Your task to perform on an android device: Go to eBay Image 0: 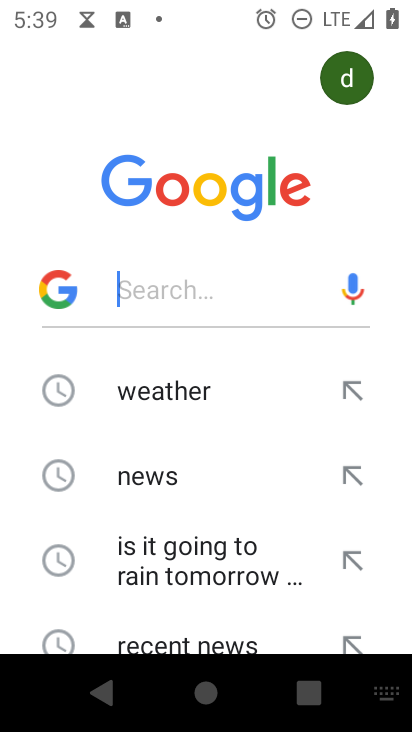
Step 0: press home button
Your task to perform on an android device: Go to eBay Image 1: 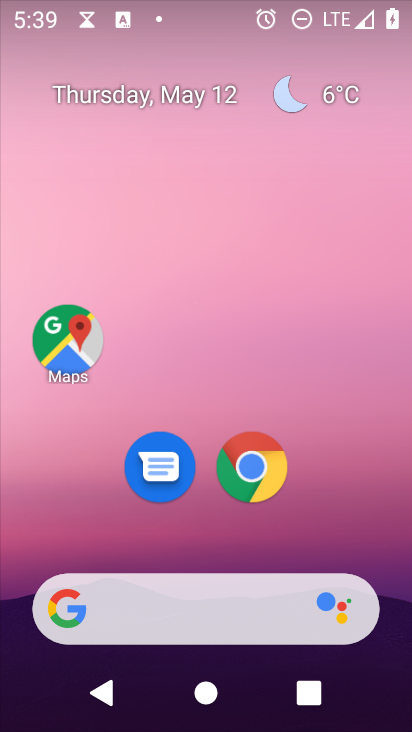
Step 1: drag from (278, 604) to (217, 17)
Your task to perform on an android device: Go to eBay Image 2: 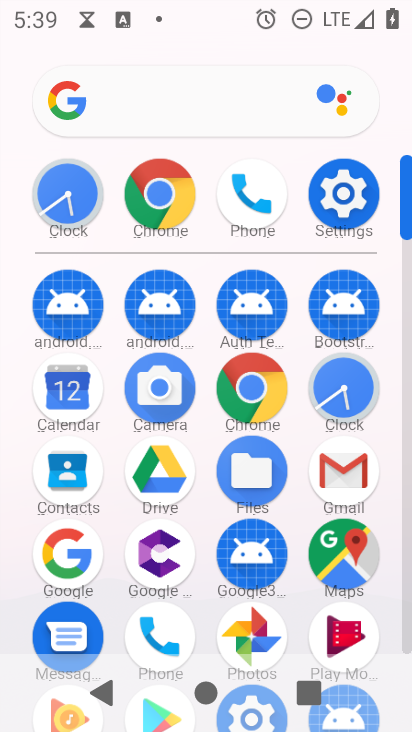
Step 2: click (255, 365)
Your task to perform on an android device: Go to eBay Image 3: 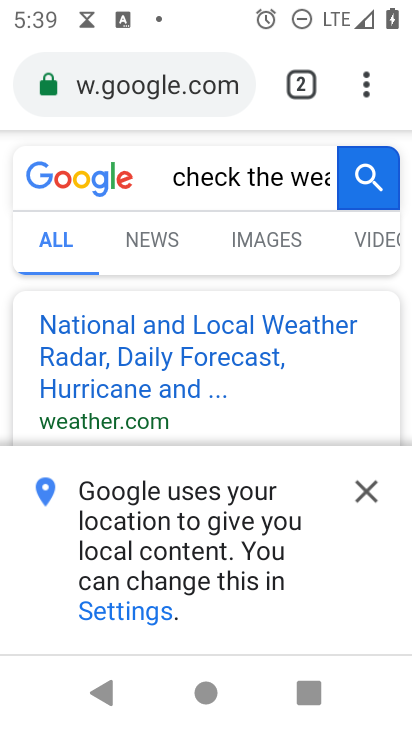
Step 3: click (234, 85)
Your task to perform on an android device: Go to eBay Image 4: 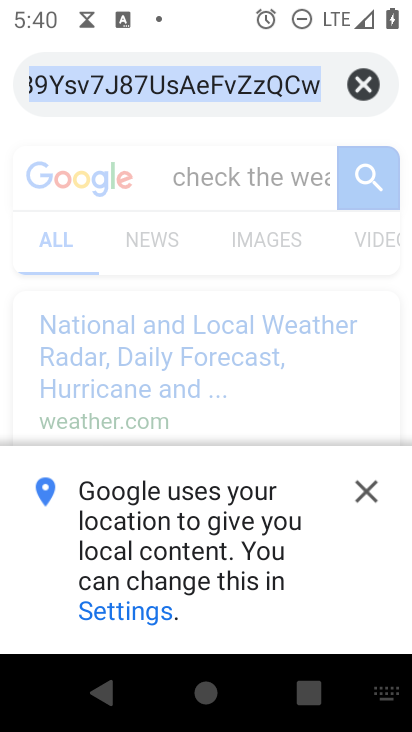
Step 4: click (367, 78)
Your task to perform on an android device: Go to eBay Image 5: 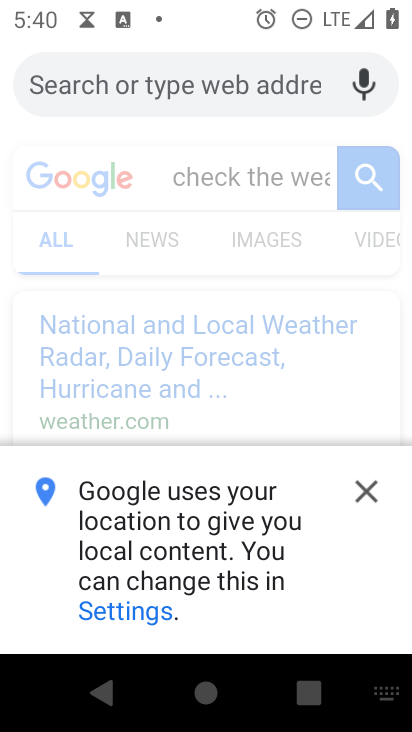
Step 5: type "ebay"
Your task to perform on an android device: Go to eBay Image 6: 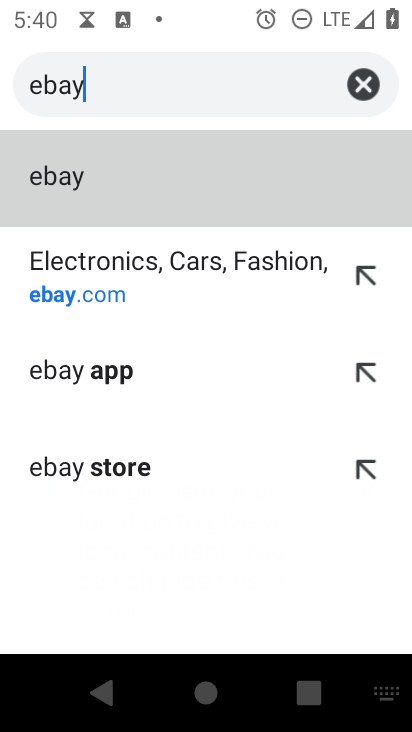
Step 6: click (243, 297)
Your task to perform on an android device: Go to eBay Image 7: 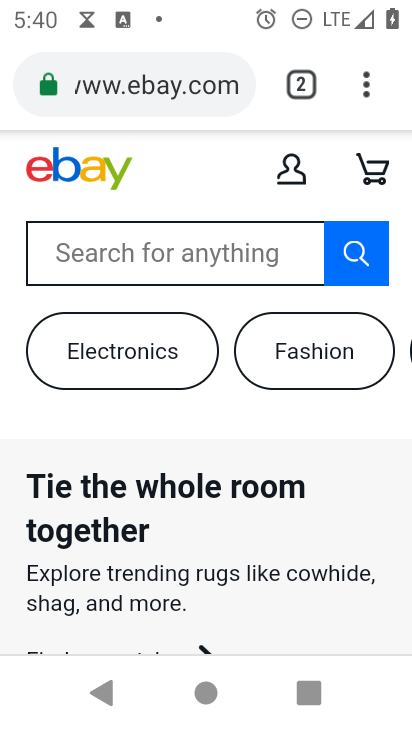
Step 7: task complete